Your task to perform on an android device: refresh tabs in the chrome app Image 0: 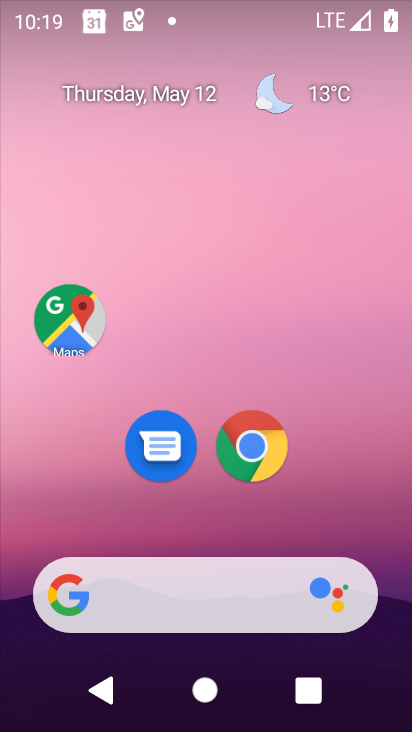
Step 0: drag from (254, 543) to (311, 11)
Your task to perform on an android device: refresh tabs in the chrome app Image 1: 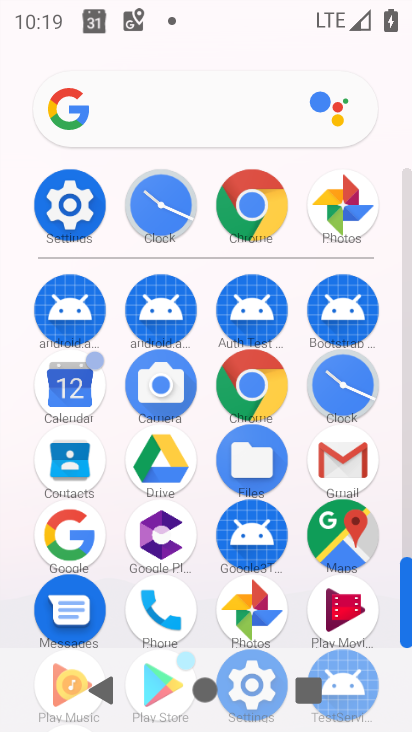
Step 1: click (255, 378)
Your task to perform on an android device: refresh tabs in the chrome app Image 2: 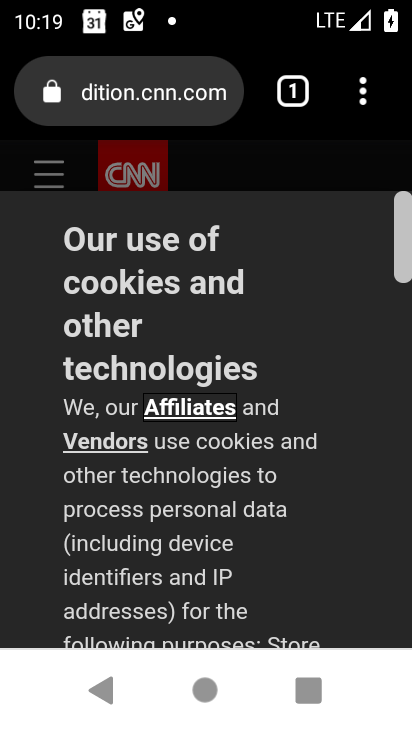
Step 2: task complete